Your task to perform on an android device: turn on location history Image 0: 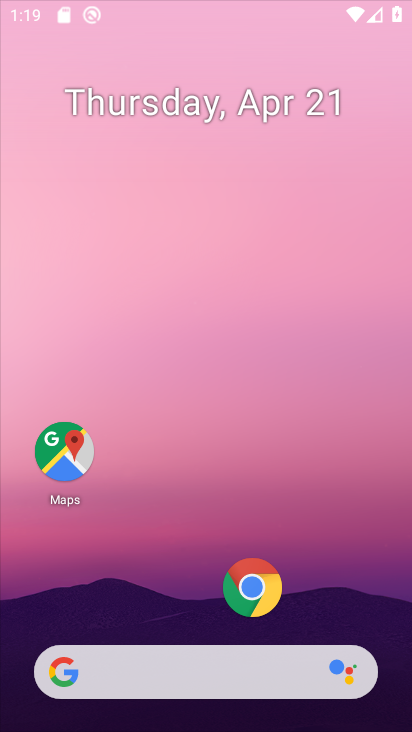
Step 0: click (254, 196)
Your task to perform on an android device: turn on location history Image 1: 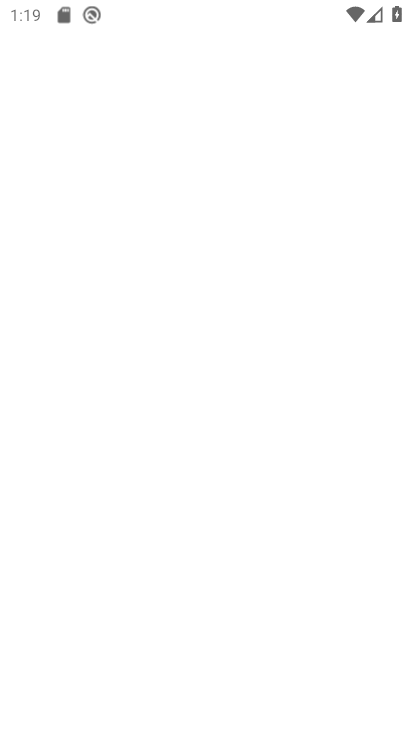
Step 1: press home button
Your task to perform on an android device: turn on location history Image 2: 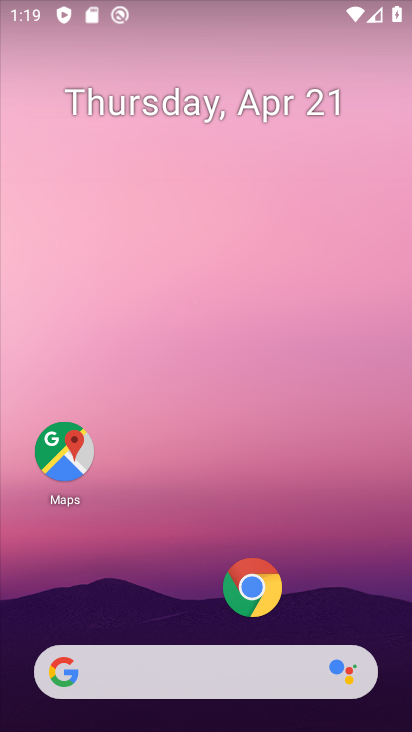
Step 2: drag from (324, 618) to (304, 31)
Your task to perform on an android device: turn on location history Image 3: 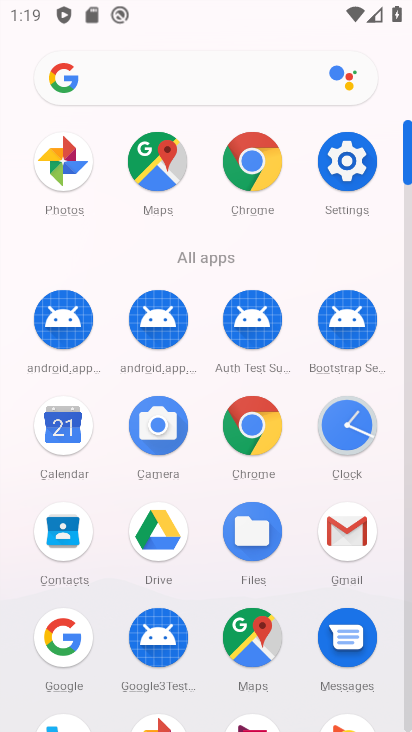
Step 3: drag from (306, 567) to (314, 258)
Your task to perform on an android device: turn on location history Image 4: 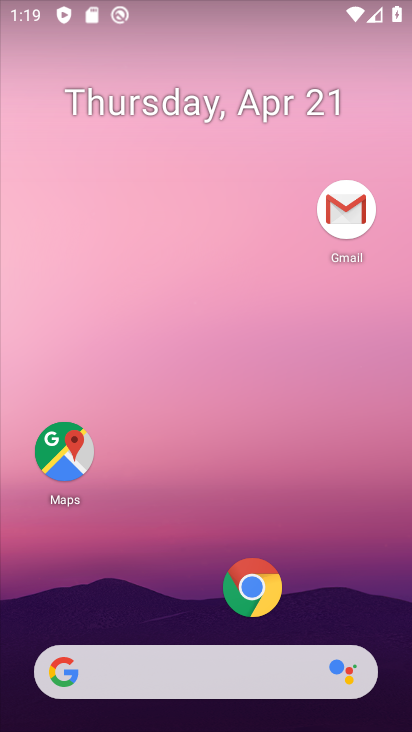
Step 4: click (327, 633)
Your task to perform on an android device: turn on location history Image 5: 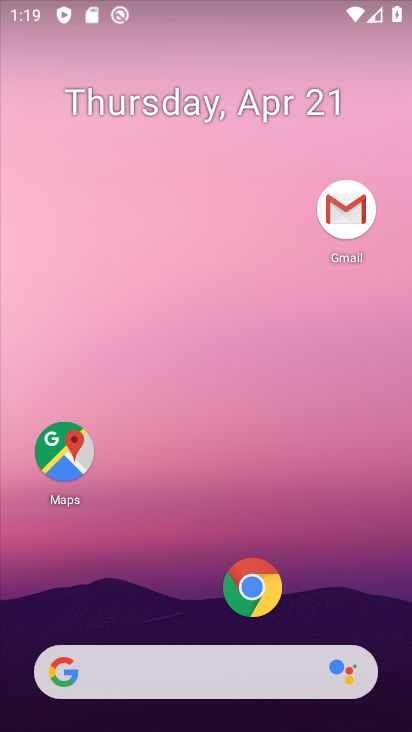
Step 5: drag from (326, 587) to (332, 128)
Your task to perform on an android device: turn on location history Image 6: 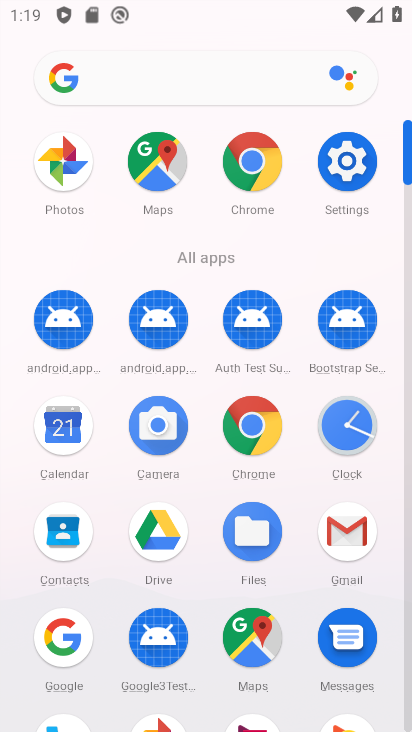
Step 6: drag from (293, 662) to (297, 269)
Your task to perform on an android device: turn on location history Image 7: 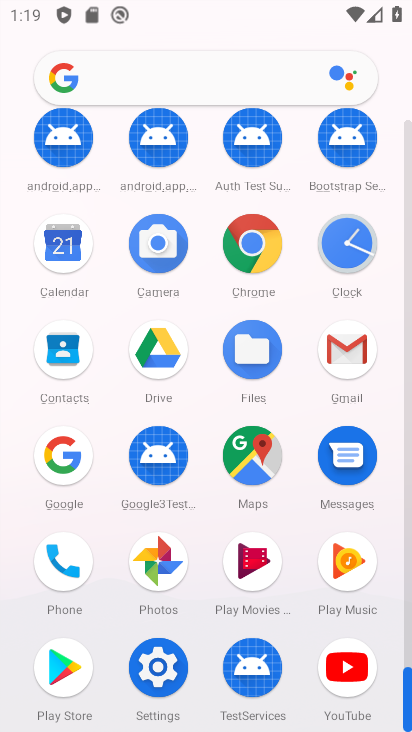
Step 7: click (153, 681)
Your task to perform on an android device: turn on location history Image 8: 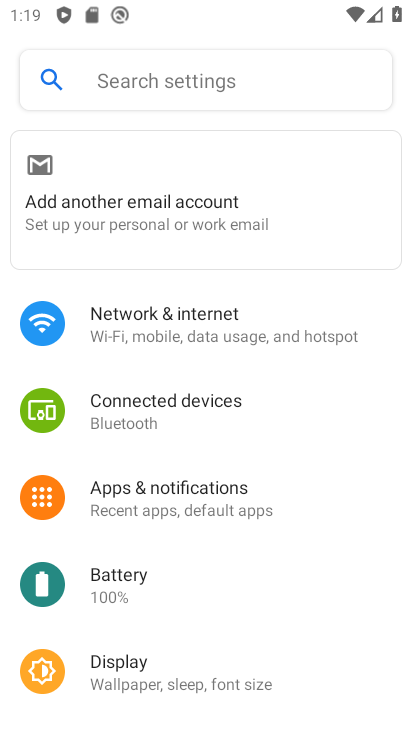
Step 8: drag from (208, 635) to (231, 256)
Your task to perform on an android device: turn on location history Image 9: 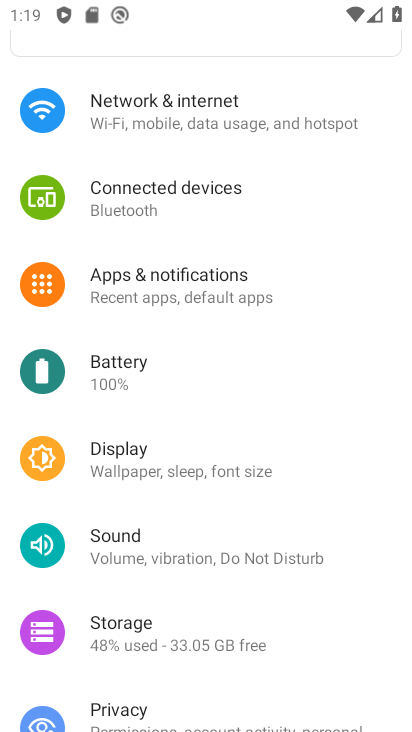
Step 9: drag from (250, 677) to (250, 286)
Your task to perform on an android device: turn on location history Image 10: 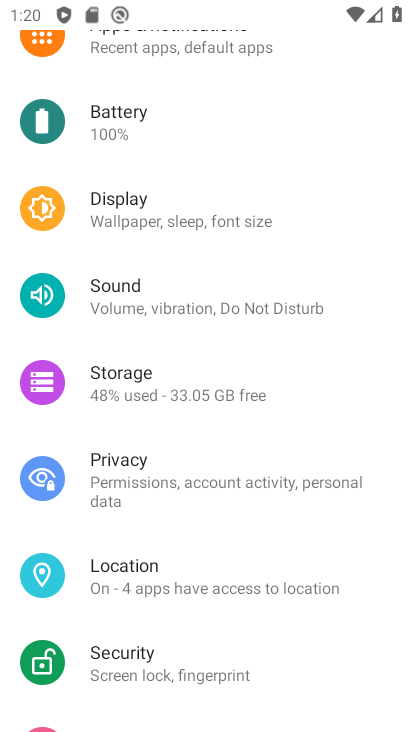
Step 10: click (139, 583)
Your task to perform on an android device: turn on location history Image 11: 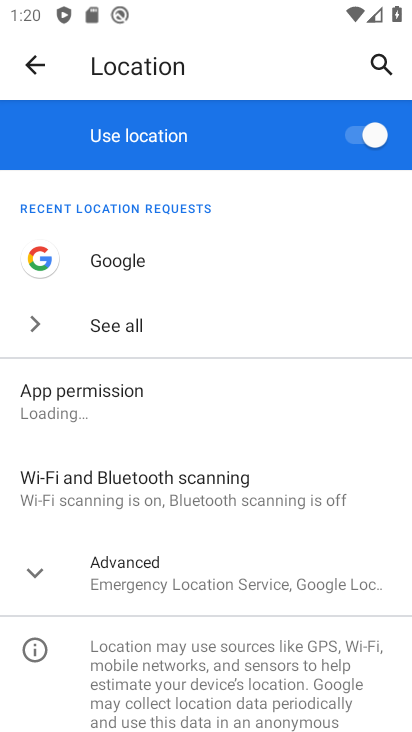
Step 11: click (221, 570)
Your task to perform on an android device: turn on location history Image 12: 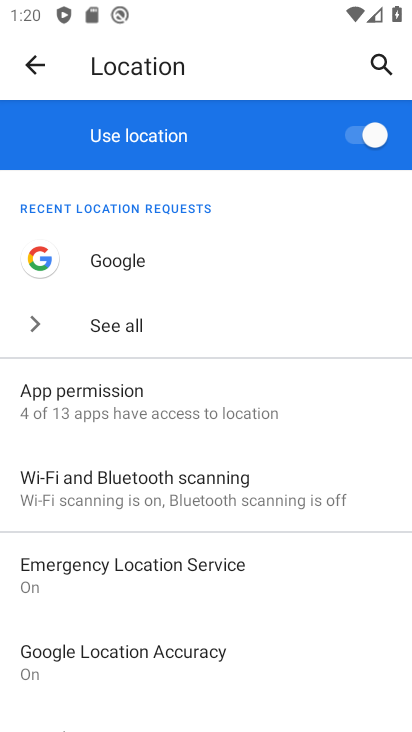
Step 12: drag from (258, 692) to (255, 292)
Your task to perform on an android device: turn on location history Image 13: 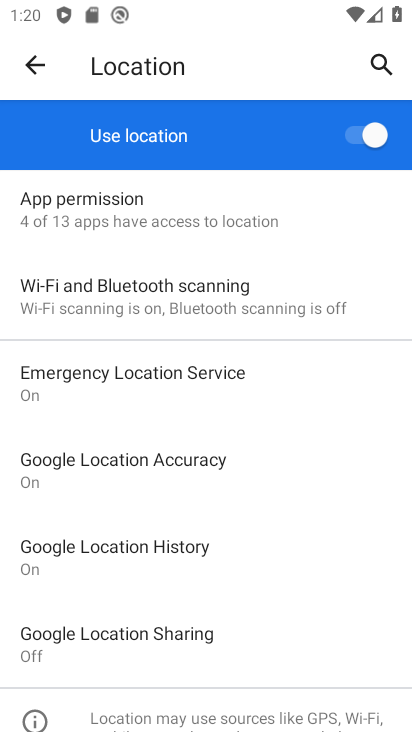
Step 13: click (177, 532)
Your task to perform on an android device: turn on location history Image 14: 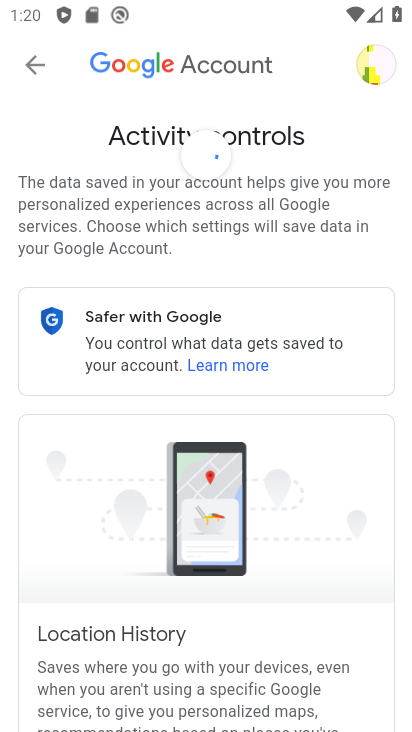
Step 14: task complete